Your task to perform on an android device: Go to Google Image 0: 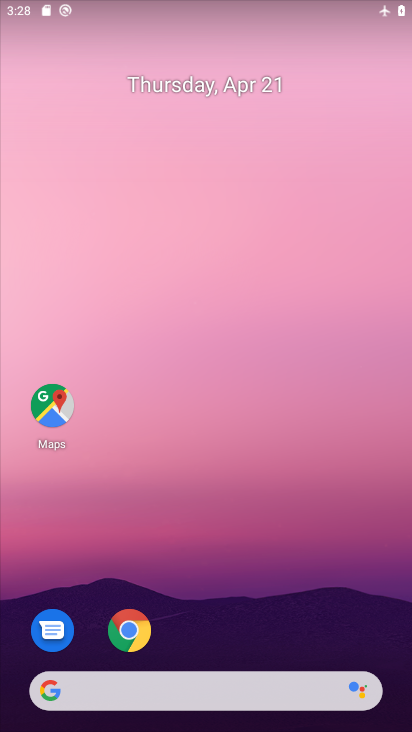
Step 0: drag from (192, 632) to (212, 0)
Your task to perform on an android device: Go to Google Image 1: 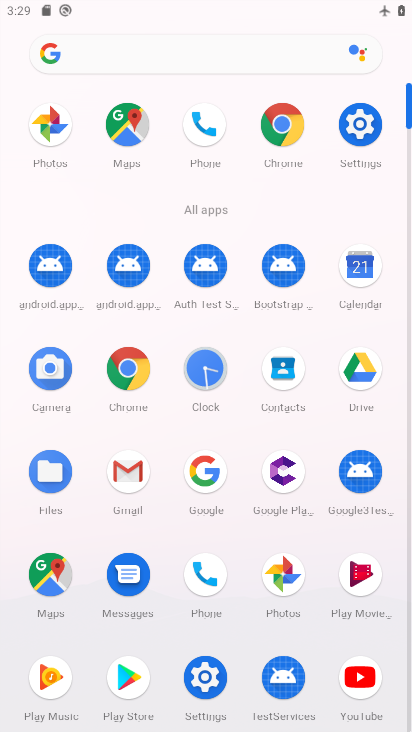
Step 1: click (211, 476)
Your task to perform on an android device: Go to Google Image 2: 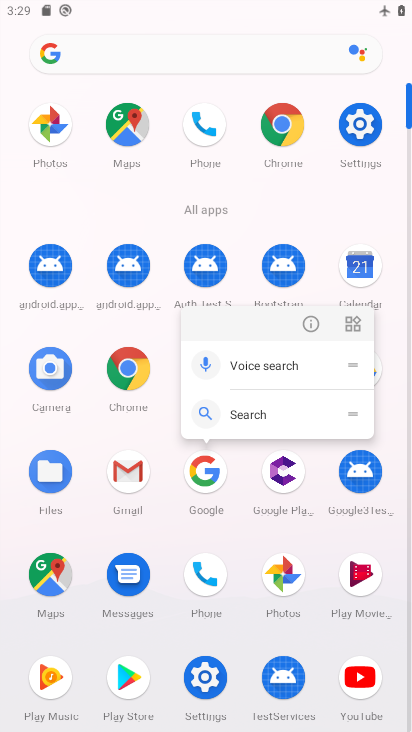
Step 2: click (317, 325)
Your task to perform on an android device: Go to Google Image 3: 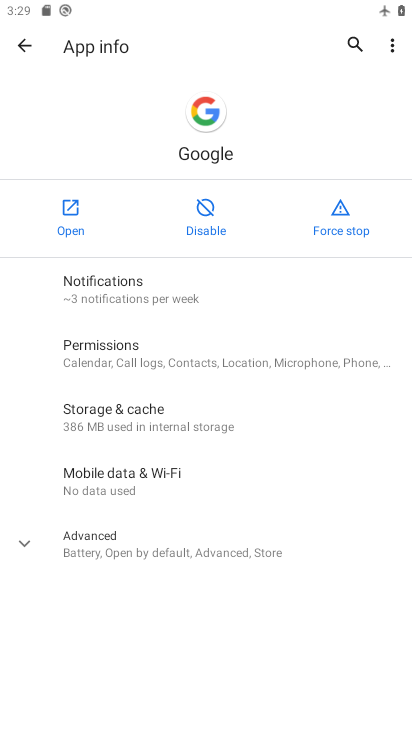
Step 3: click (81, 213)
Your task to perform on an android device: Go to Google Image 4: 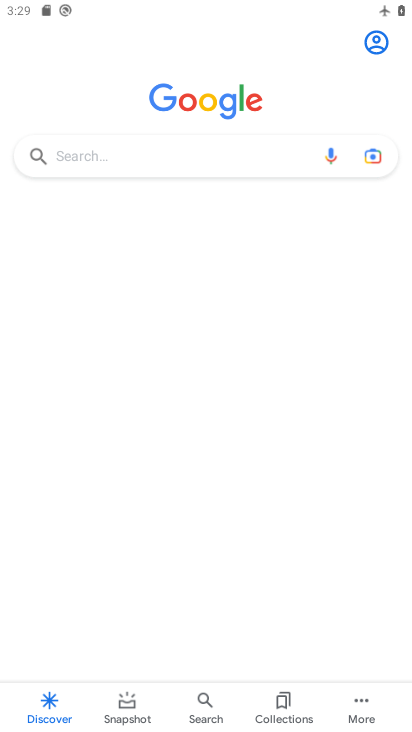
Step 4: task complete